Your task to perform on an android device: Search for seafood restaurants on Google Maps Image 0: 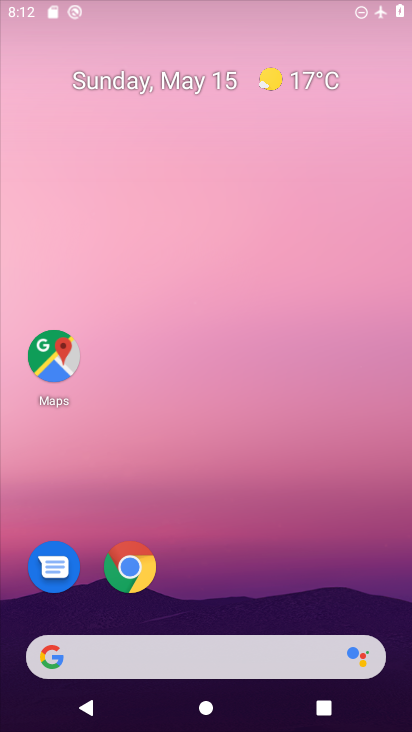
Step 0: drag from (196, 643) to (387, 9)
Your task to perform on an android device: Search for seafood restaurants on Google Maps Image 1: 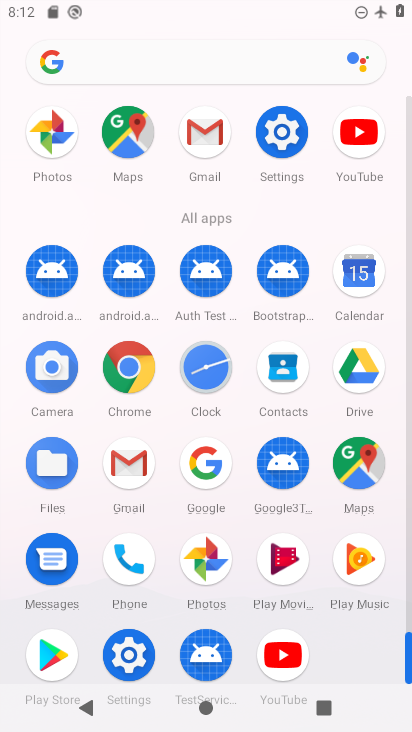
Step 1: click (370, 467)
Your task to perform on an android device: Search for seafood restaurants on Google Maps Image 2: 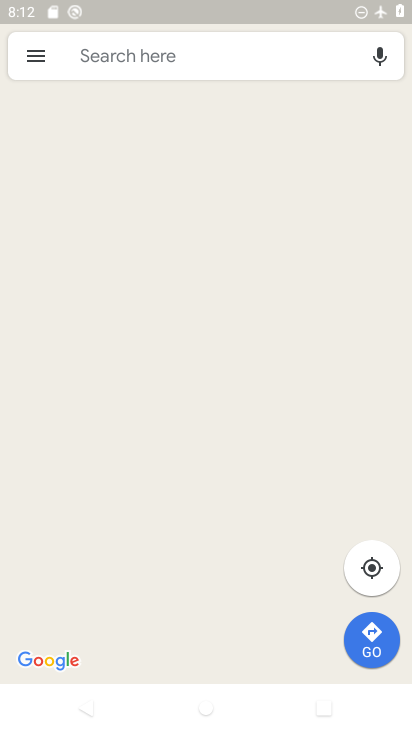
Step 2: click (187, 58)
Your task to perform on an android device: Search for seafood restaurants on Google Maps Image 3: 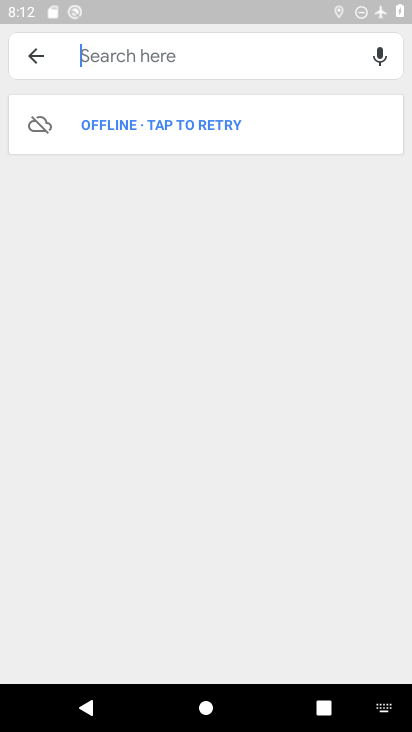
Step 3: task complete